Your task to perform on an android device: change the clock style Image 0: 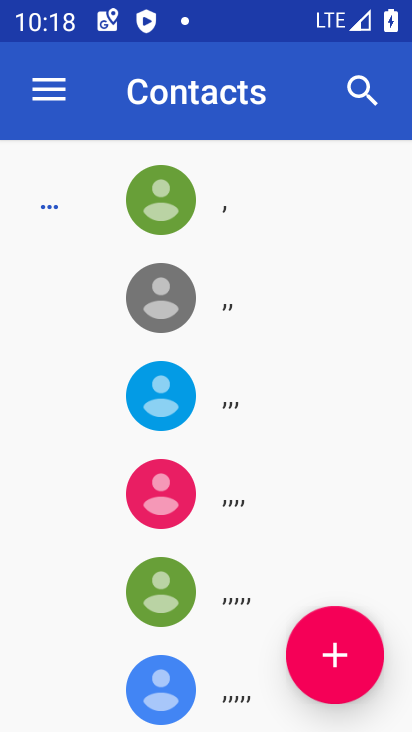
Step 0: press home button
Your task to perform on an android device: change the clock style Image 1: 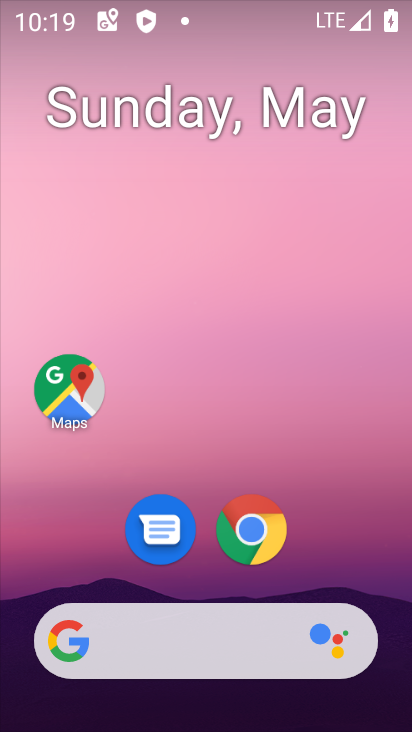
Step 1: drag from (352, 551) to (62, 3)
Your task to perform on an android device: change the clock style Image 2: 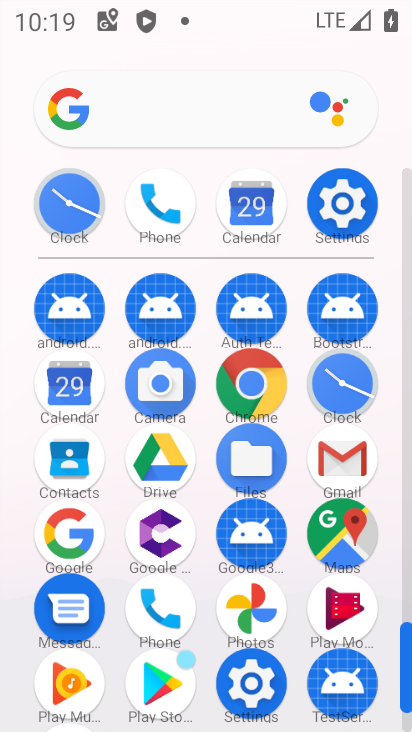
Step 2: click (69, 232)
Your task to perform on an android device: change the clock style Image 3: 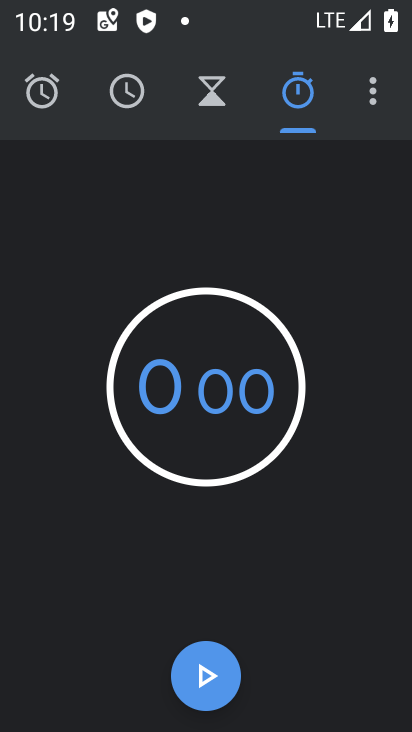
Step 3: click (381, 100)
Your task to perform on an android device: change the clock style Image 4: 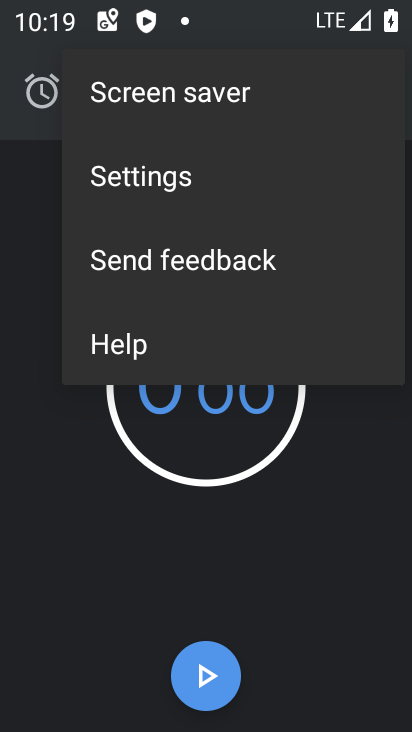
Step 4: click (202, 172)
Your task to perform on an android device: change the clock style Image 5: 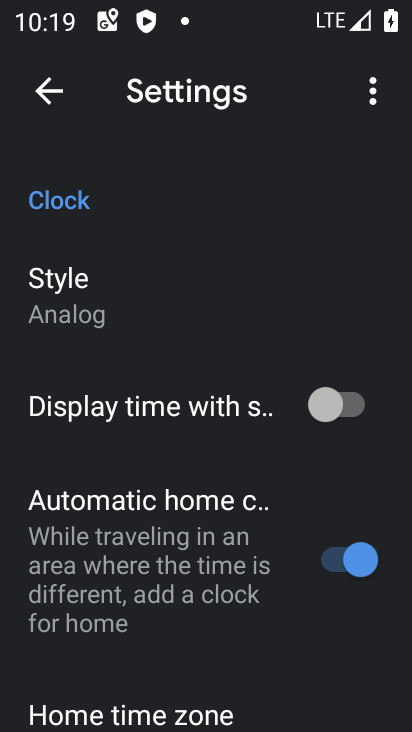
Step 5: click (138, 284)
Your task to perform on an android device: change the clock style Image 6: 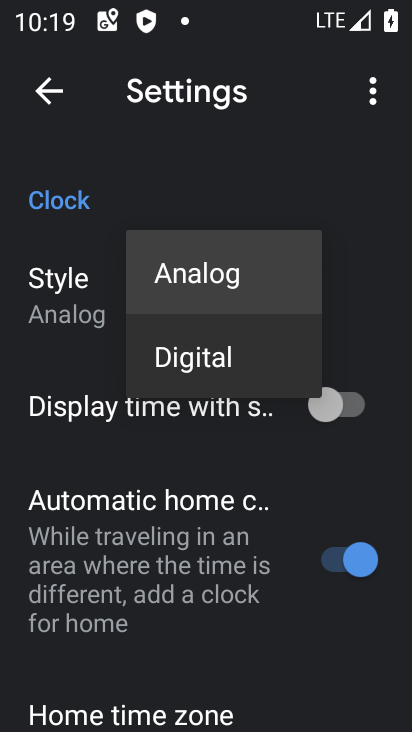
Step 6: click (225, 361)
Your task to perform on an android device: change the clock style Image 7: 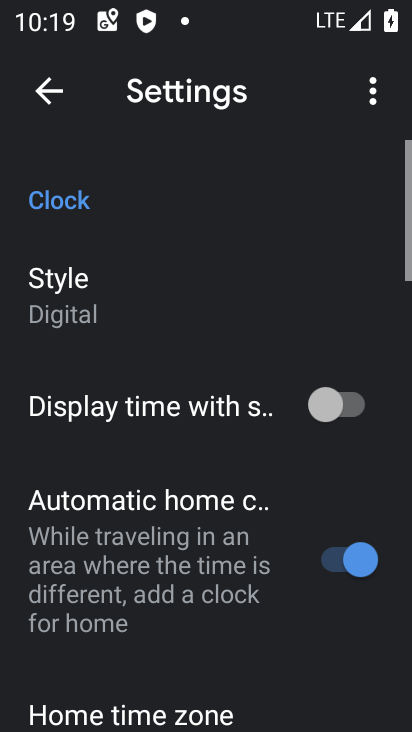
Step 7: task complete